Your task to perform on an android device: turn off data saver in the chrome app Image 0: 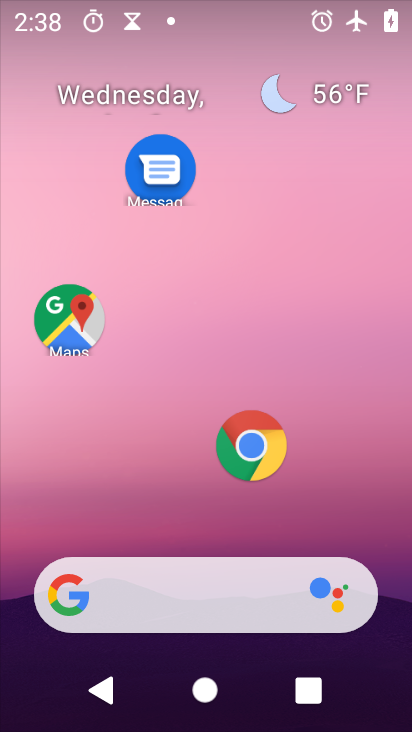
Step 0: drag from (188, 517) to (232, 80)
Your task to perform on an android device: turn off data saver in the chrome app Image 1: 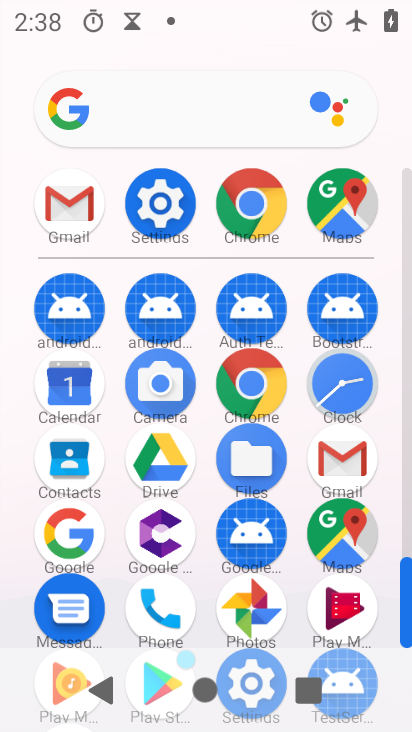
Step 1: drag from (213, 120) to (219, 47)
Your task to perform on an android device: turn off data saver in the chrome app Image 2: 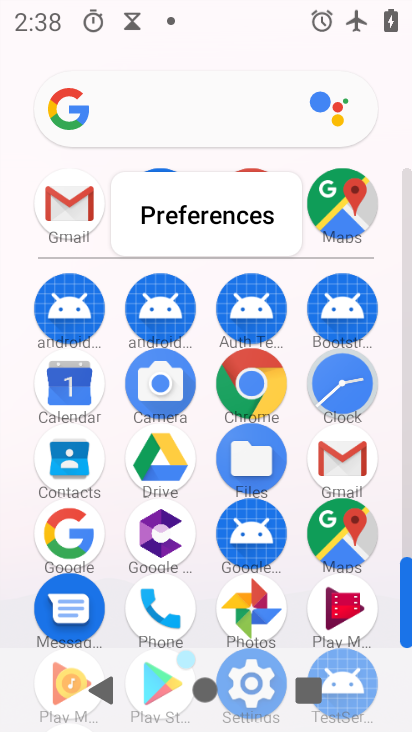
Step 2: click (253, 385)
Your task to perform on an android device: turn off data saver in the chrome app Image 3: 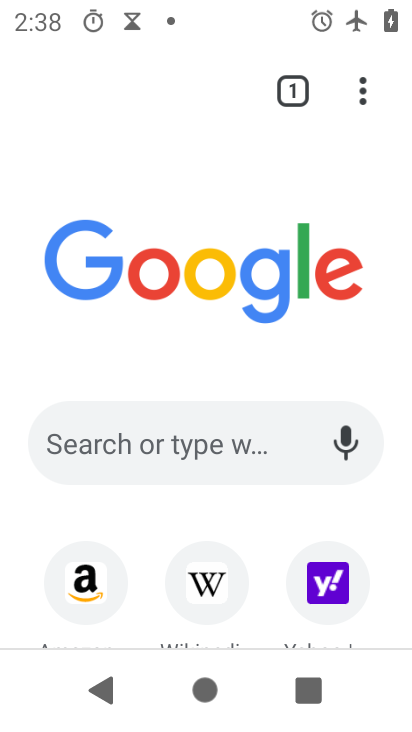
Step 3: click (357, 98)
Your task to perform on an android device: turn off data saver in the chrome app Image 4: 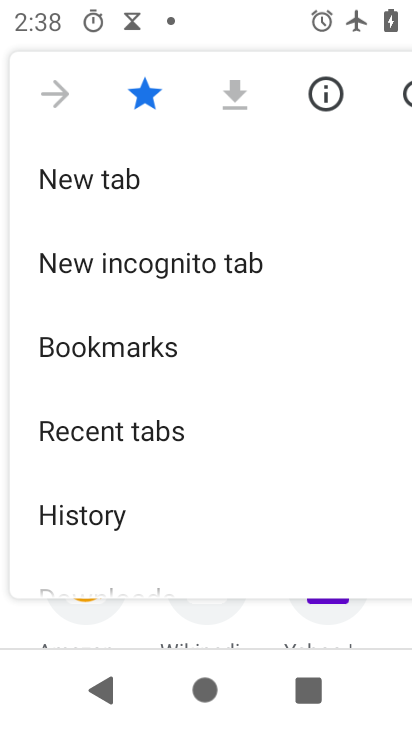
Step 4: drag from (209, 447) to (220, 189)
Your task to perform on an android device: turn off data saver in the chrome app Image 5: 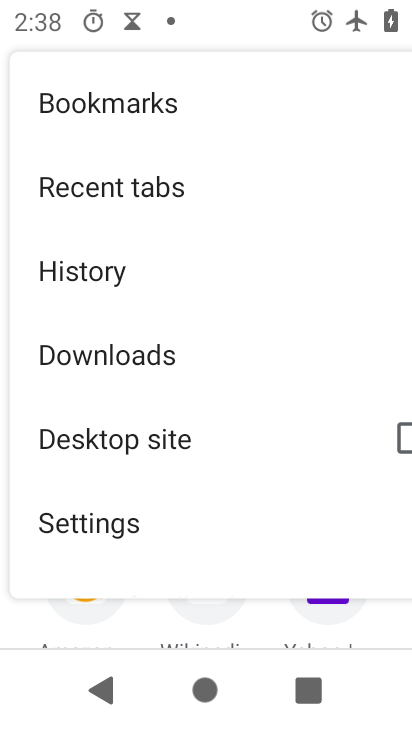
Step 5: click (121, 528)
Your task to perform on an android device: turn off data saver in the chrome app Image 6: 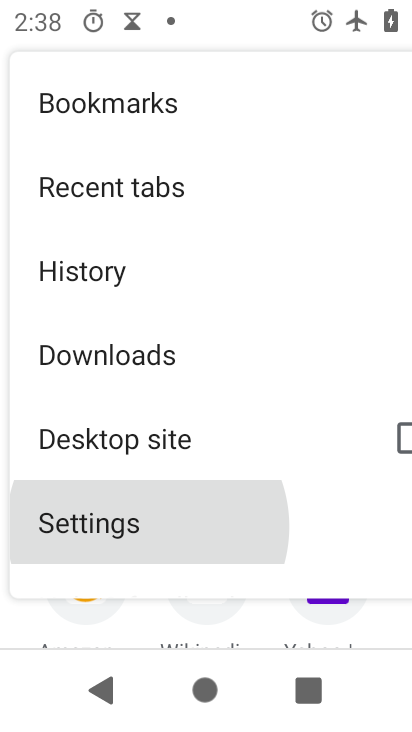
Step 6: click (121, 526)
Your task to perform on an android device: turn off data saver in the chrome app Image 7: 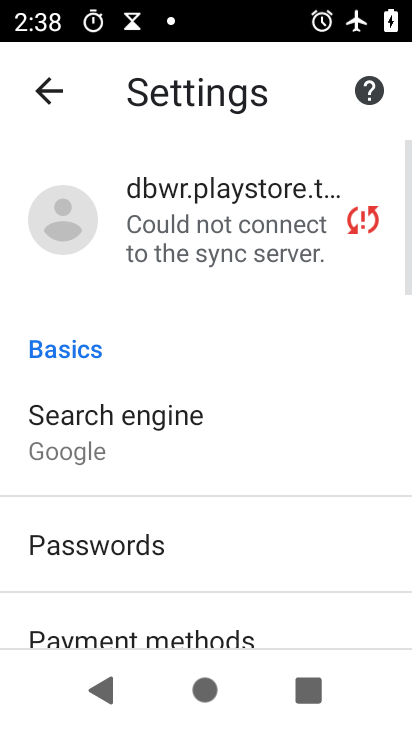
Step 7: drag from (181, 522) to (198, 248)
Your task to perform on an android device: turn off data saver in the chrome app Image 8: 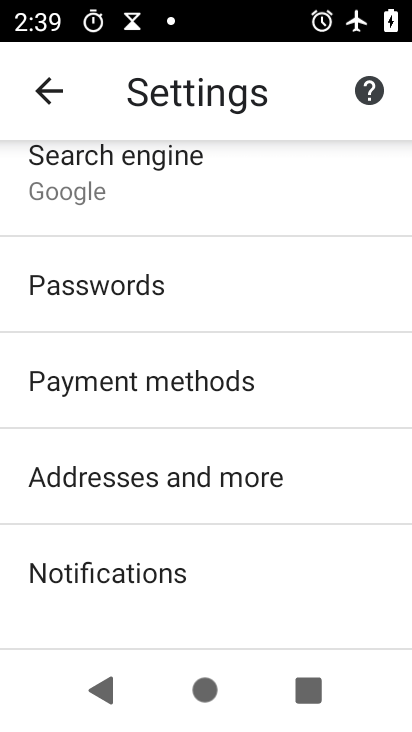
Step 8: drag from (130, 553) to (183, 184)
Your task to perform on an android device: turn off data saver in the chrome app Image 9: 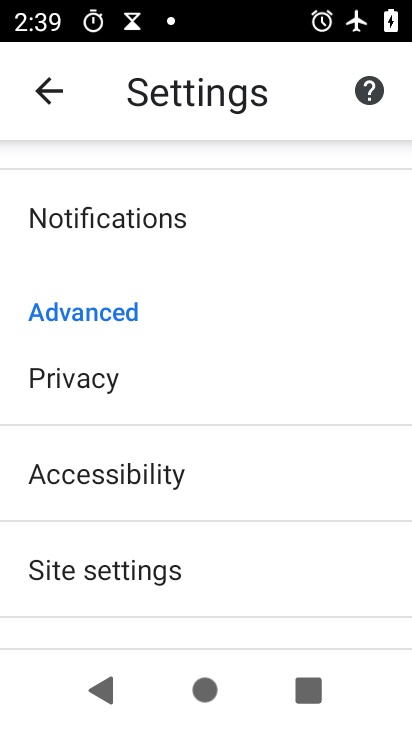
Step 9: drag from (185, 577) to (207, 362)
Your task to perform on an android device: turn off data saver in the chrome app Image 10: 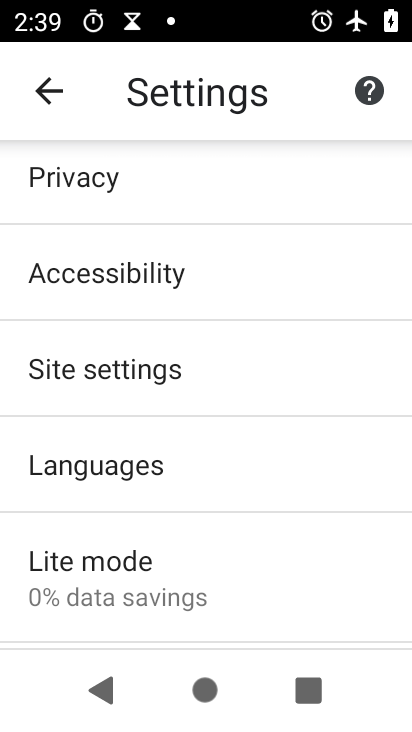
Step 10: click (171, 379)
Your task to perform on an android device: turn off data saver in the chrome app Image 11: 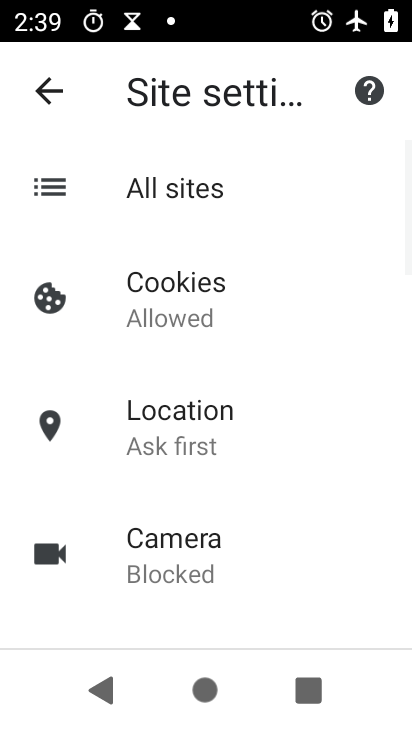
Step 11: press back button
Your task to perform on an android device: turn off data saver in the chrome app Image 12: 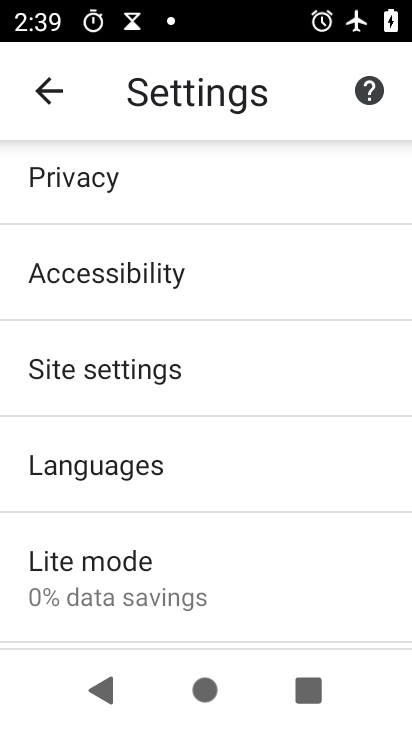
Step 12: click (168, 594)
Your task to perform on an android device: turn off data saver in the chrome app Image 13: 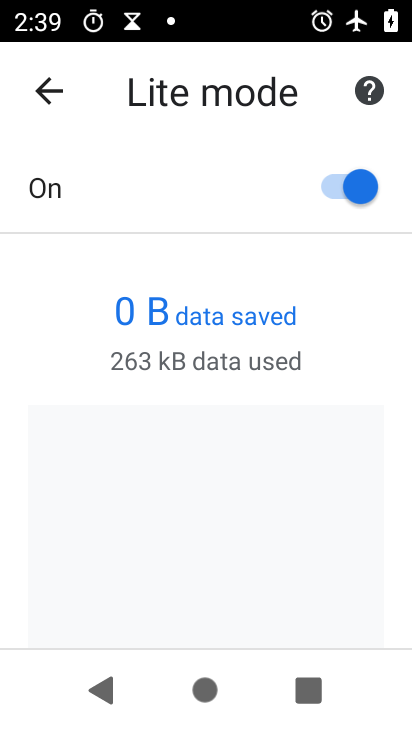
Step 13: click (342, 197)
Your task to perform on an android device: turn off data saver in the chrome app Image 14: 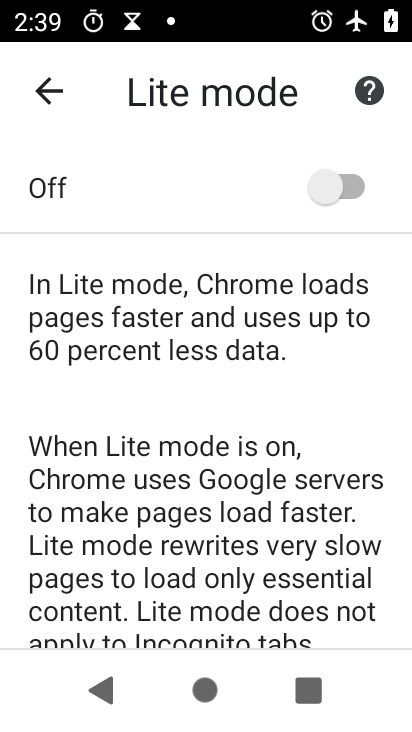
Step 14: task complete